Your task to perform on an android device: Open calendar and show me the third week of next month Image 0: 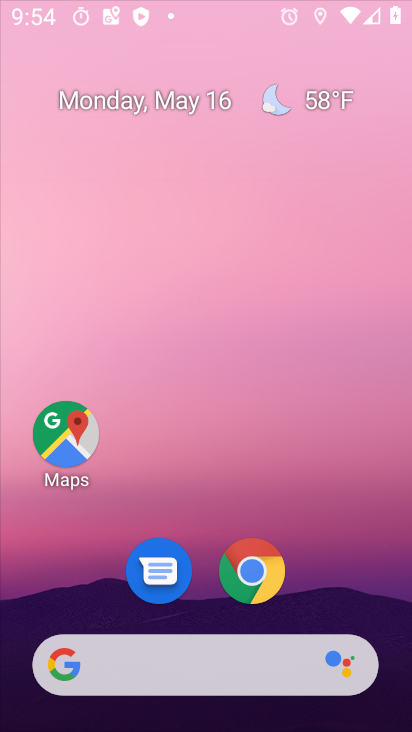
Step 0: drag from (69, 169) to (104, 242)
Your task to perform on an android device: Open calendar and show me the third week of next month Image 1: 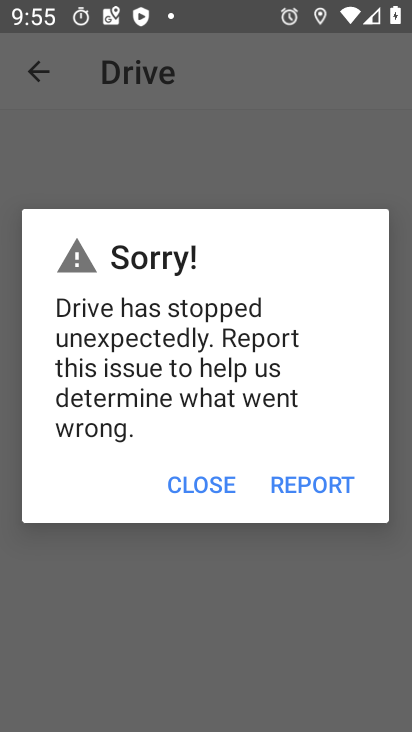
Step 1: click (209, 487)
Your task to perform on an android device: Open calendar and show me the third week of next month Image 2: 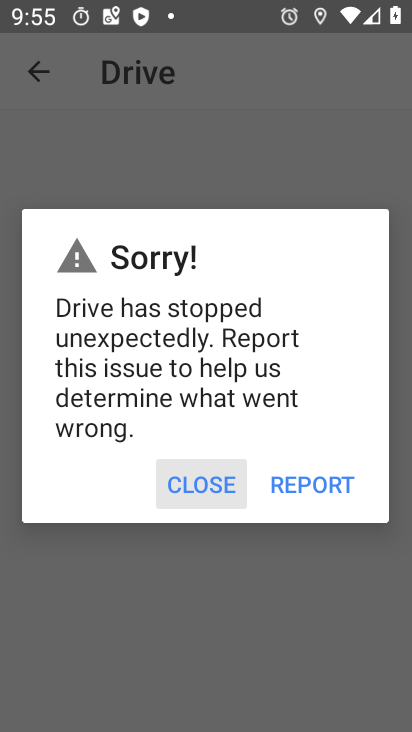
Step 2: click (209, 487)
Your task to perform on an android device: Open calendar and show me the third week of next month Image 3: 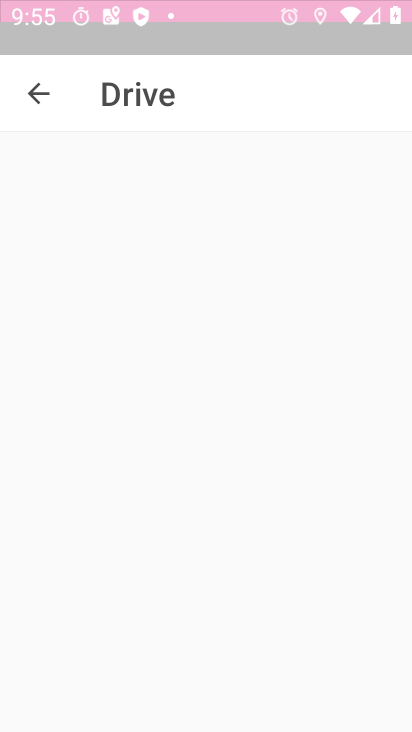
Step 3: click (209, 487)
Your task to perform on an android device: Open calendar and show me the third week of next month Image 4: 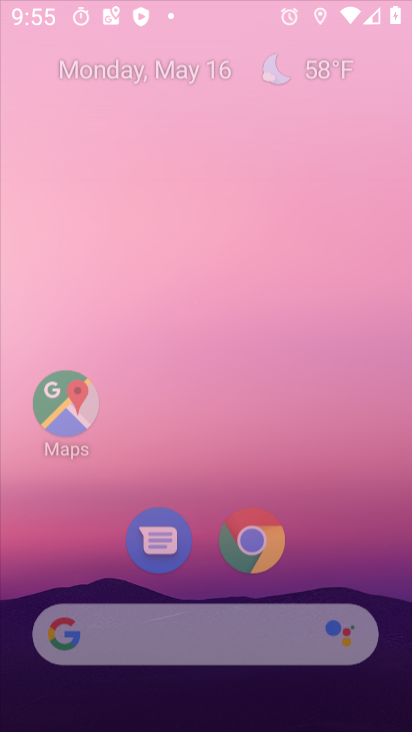
Step 4: click (209, 487)
Your task to perform on an android device: Open calendar and show me the third week of next month Image 5: 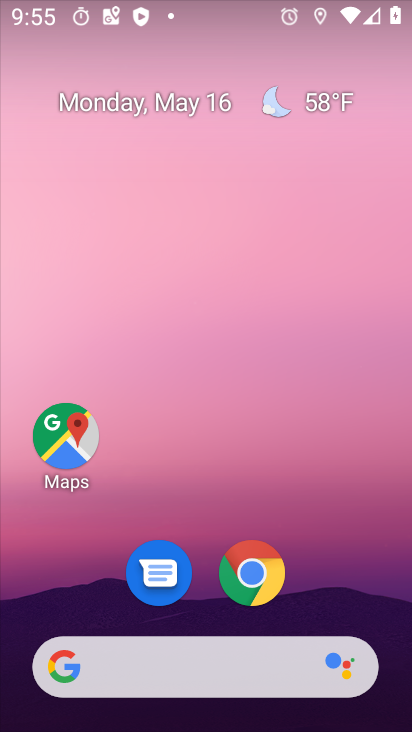
Step 5: drag from (312, 616) to (228, 35)
Your task to perform on an android device: Open calendar and show me the third week of next month Image 6: 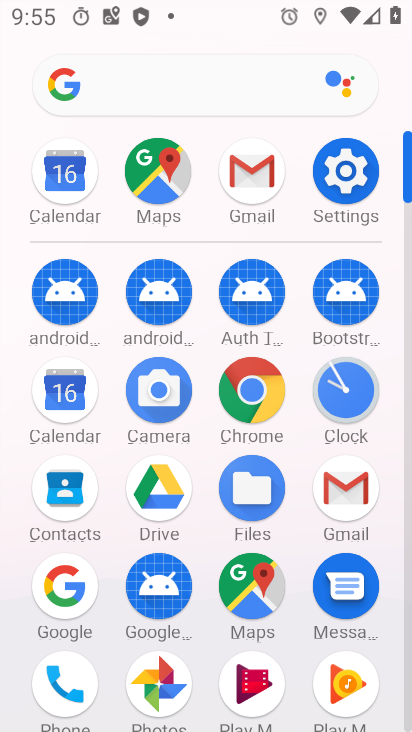
Step 6: click (46, 399)
Your task to perform on an android device: Open calendar and show me the third week of next month Image 7: 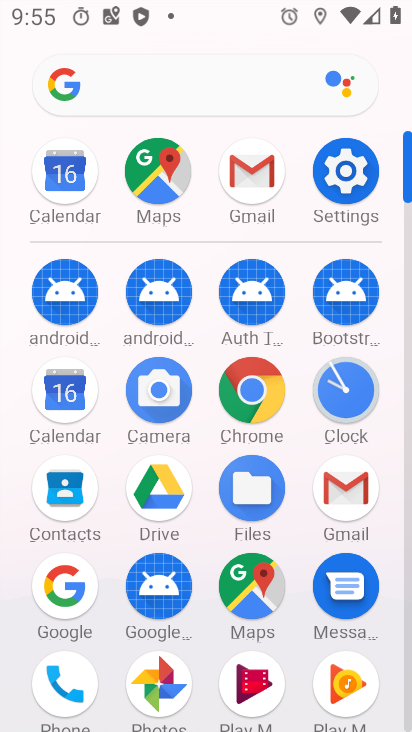
Step 7: click (47, 400)
Your task to perform on an android device: Open calendar and show me the third week of next month Image 8: 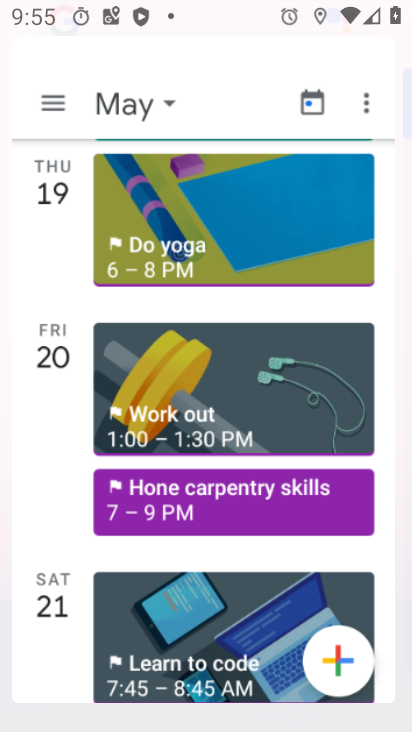
Step 8: click (55, 410)
Your task to perform on an android device: Open calendar and show me the third week of next month Image 9: 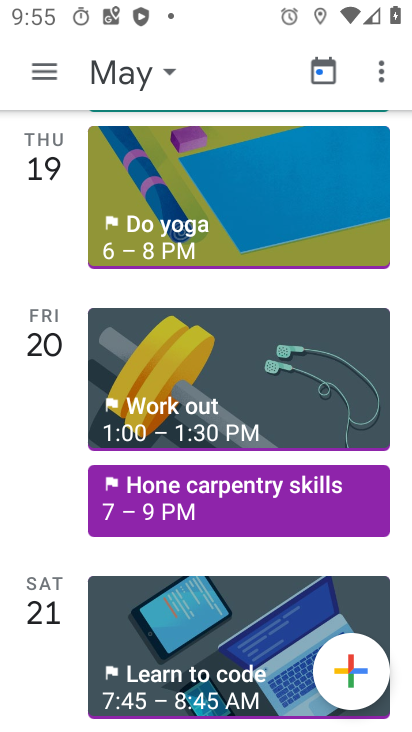
Step 9: click (169, 58)
Your task to perform on an android device: Open calendar and show me the third week of next month Image 10: 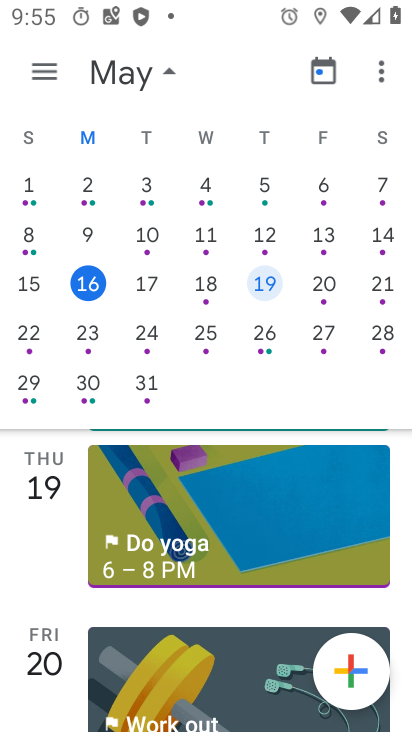
Step 10: drag from (265, 288) to (66, 288)
Your task to perform on an android device: Open calendar and show me the third week of next month Image 11: 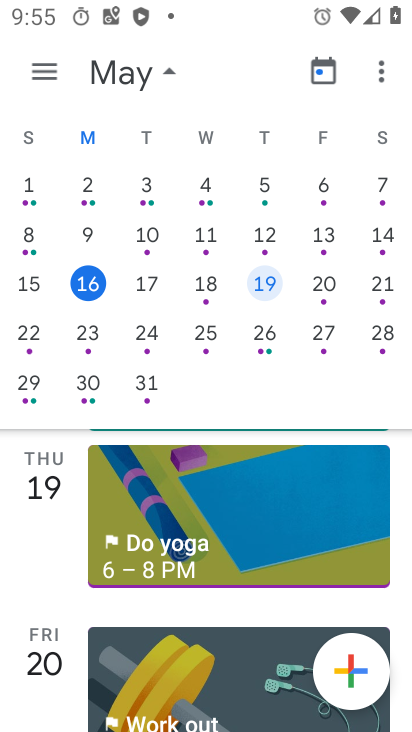
Step 11: drag from (276, 278) to (20, 202)
Your task to perform on an android device: Open calendar and show me the third week of next month Image 12: 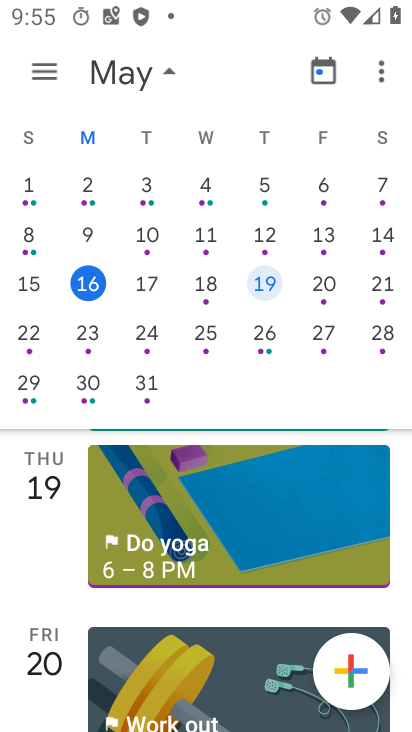
Step 12: drag from (241, 269) to (15, 302)
Your task to perform on an android device: Open calendar and show me the third week of next month Image 13: 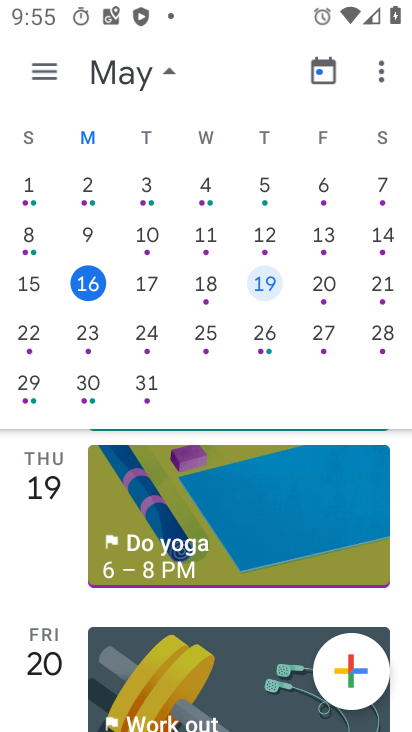
Step 13: drag from (338, 290) to (22, 248)
Your task to perform on an android device: Open calendar and show me the third week of next month Image 14: 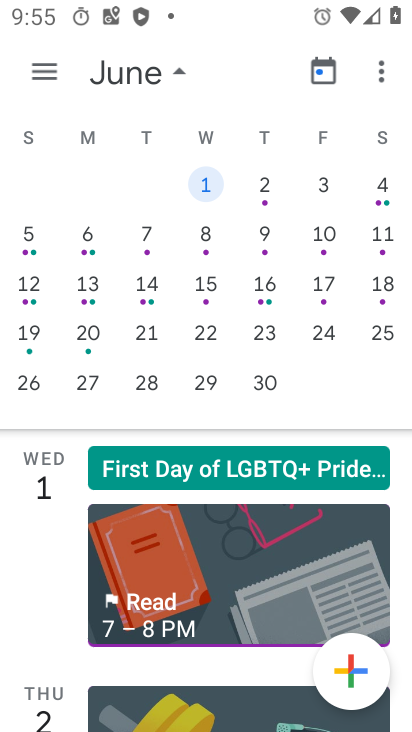
Step 14: drag from (283, 250) to (56, 300)
Your task to perform on an android device: Open calendar and show me the third week of next month Image 15: 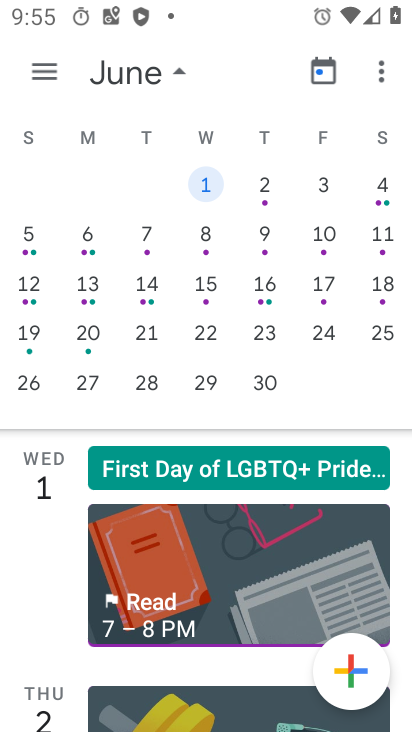
Step 15: click (205, 274)
Your task to perform on an android device: Open calendar and show me the third week of next month Image 16: 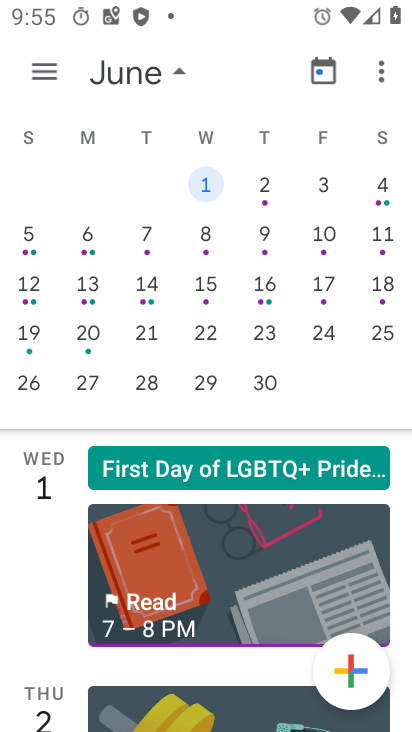
Step 16: click (207, 275)
Your task to perform on an android device: Open calendar and show me the third week of next month Image 17: 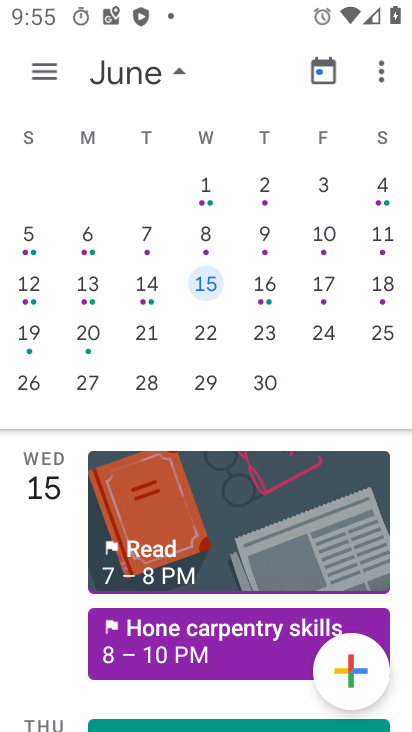
Step 17: click (208, 275)
Your task to perform on an android device: Open calendar and show me the third week of next month Image 18: 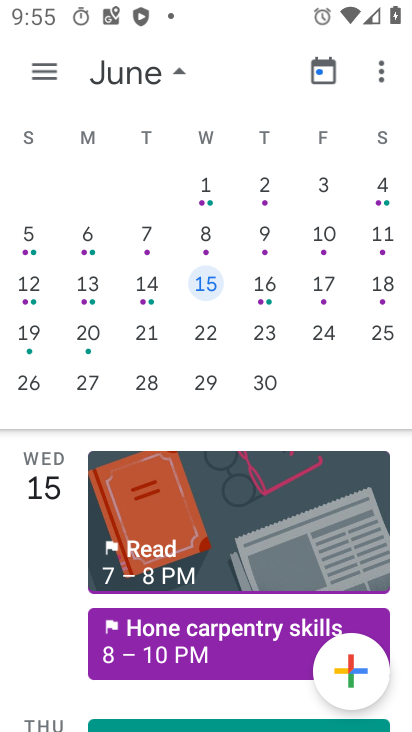
Step 18: click (209, 275)
Your task to perform on an android device: Open calendar and show me the third week of next month Image 19: 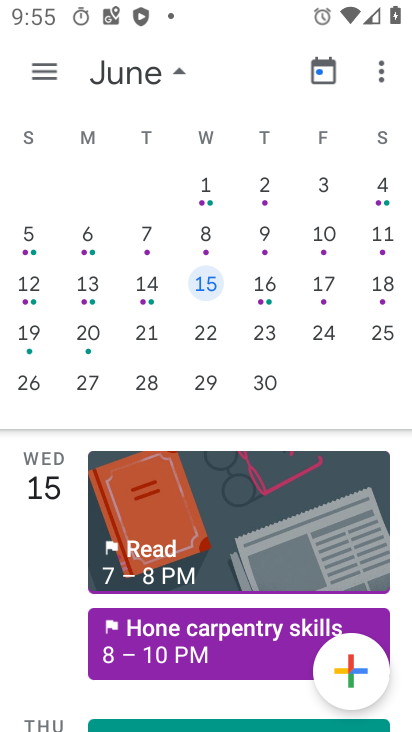
Step 19: click (210, 274)
Your task to perform on an android device: Open calendar and show me the third week of next month Image 20: 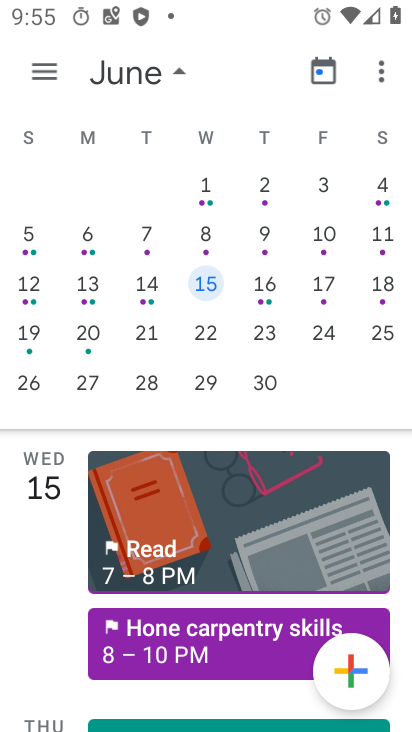
Step 20: task complete